Your task to perform on an android device: open a new tab in the chrome app Image 0: 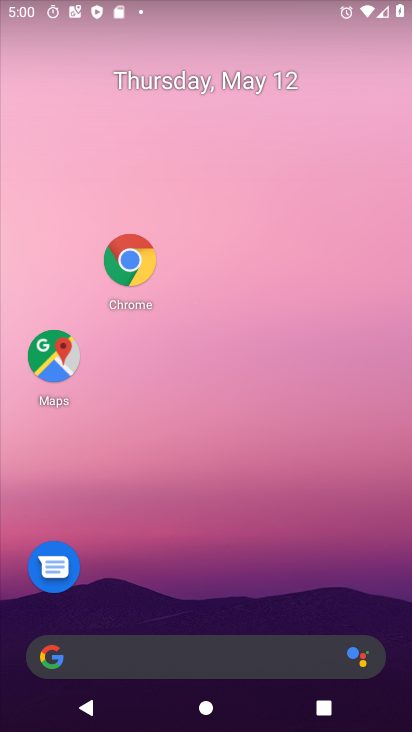
Step 0: click (137, 252)
Your task to perform on an android device: open a new tab in the chrome app Image 1: 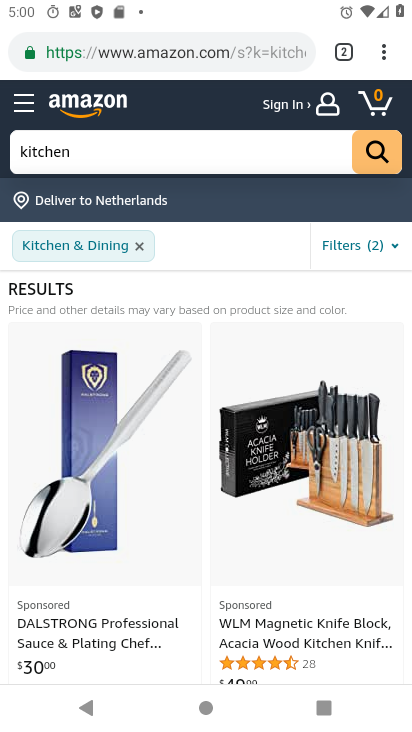
Step 1: click (381, 53)
Your task to perform on an android device: open a new tab in the chrome app Image 2: 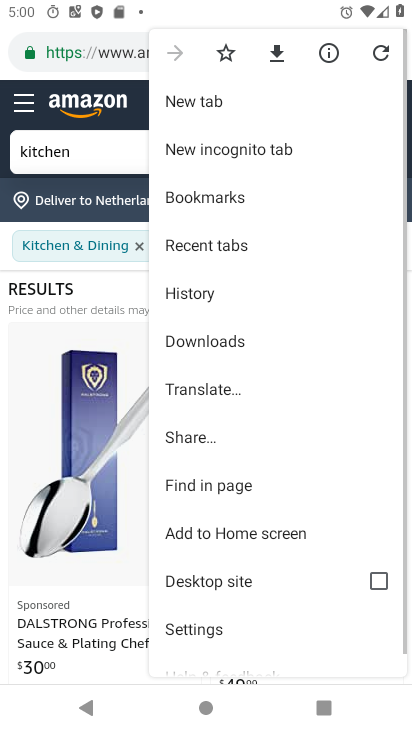
Step 2: click (201, 105)
Your task to perform on an android device: open a new tab in the chrome app Image 3: 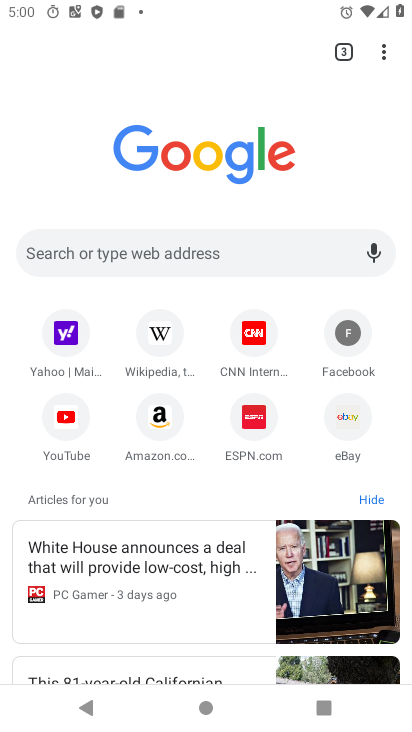
Step 3: task complete